Your task to perform on an android device: Open Maps and search for coffee Image 0: 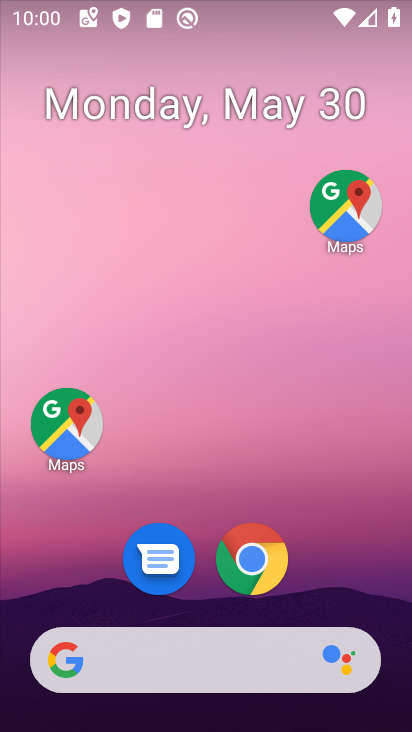
Step 0: click (72, 428)
Your task to perform on an android device: Open Maps and search for coffee Image 1: 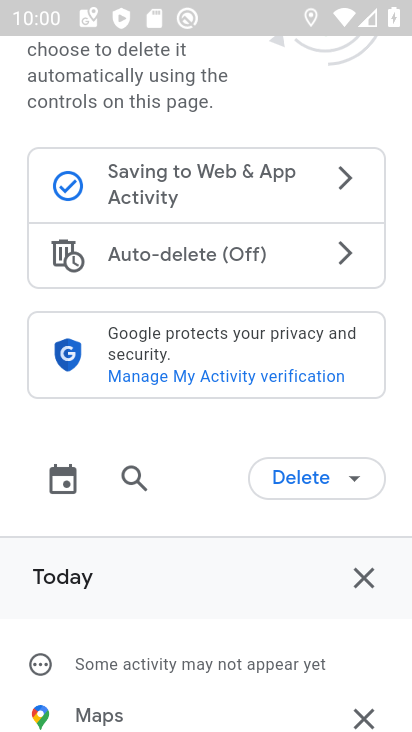
Step 1: press back button
Your task to perform on an android device: Open Maps and search for coffee Image 2: 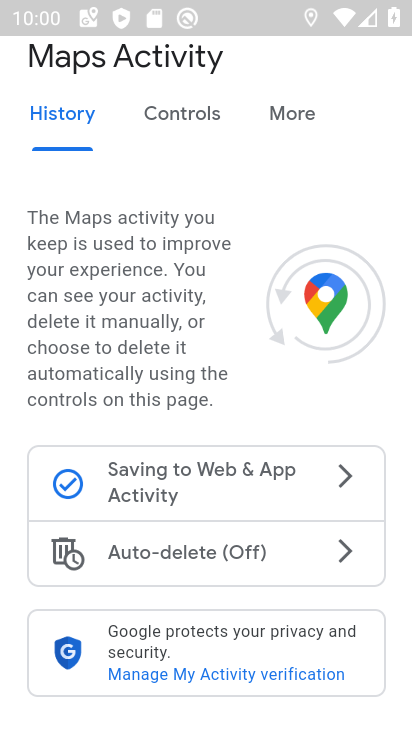
Step 2: press back button
Your task to perform on an android device: Open Maps and search for coffee Image 3: 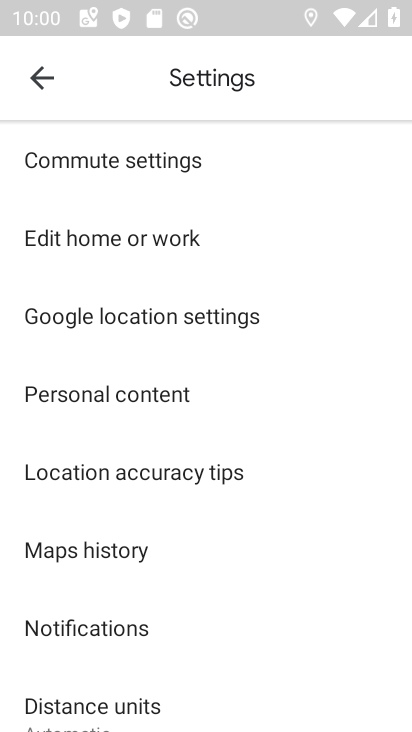
Step 3: press back button
Your task to perform on an android device: Open Maps and search for coffee Image 4: 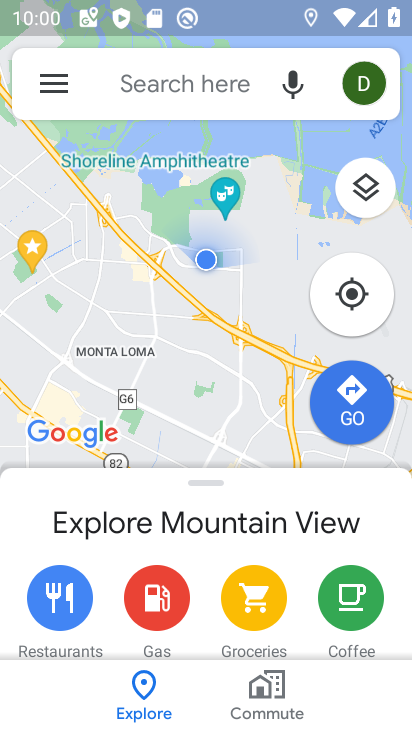
Step 4: click (235, 80)
Your task to perform on an android device: Open Maps and search for coffee Image 5: 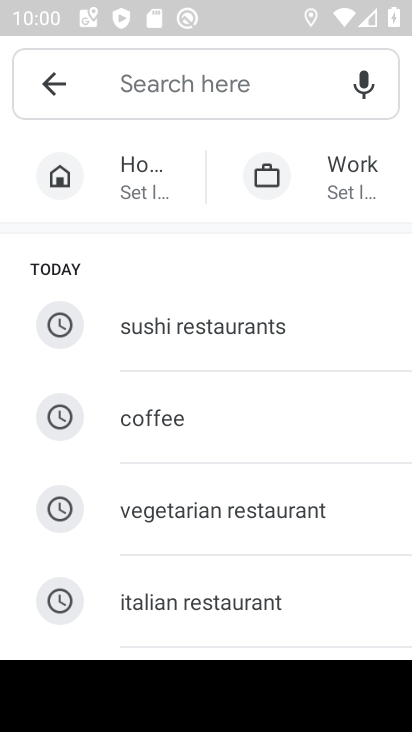
Step 5: click (243, 435)
Your task to perform on an android device: Open Maps and search for coffee Image 6: 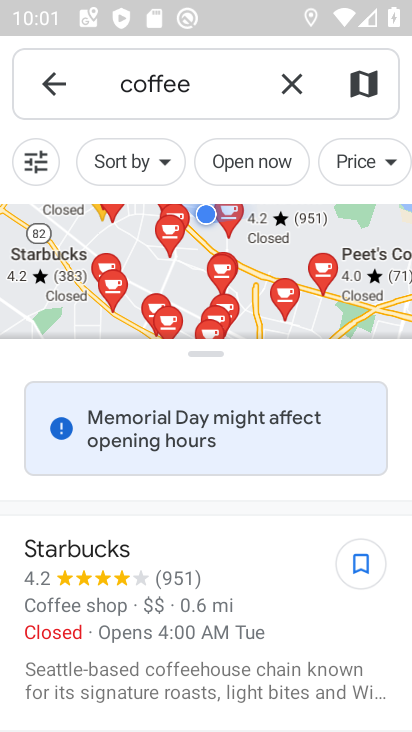
Step 6: task complete